Your task to perform on an android device: toggle improve location accuracy Image 0: 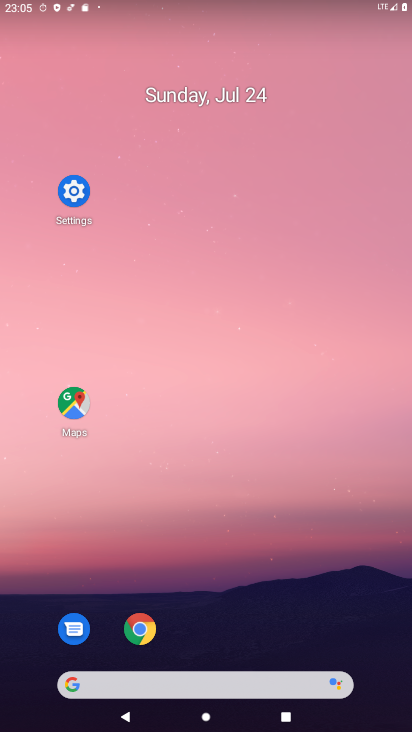
Step 0: drag from (297, 695) to (229, 126)
Your task to perform on an android device: toggle improve location accuracy Image 1: 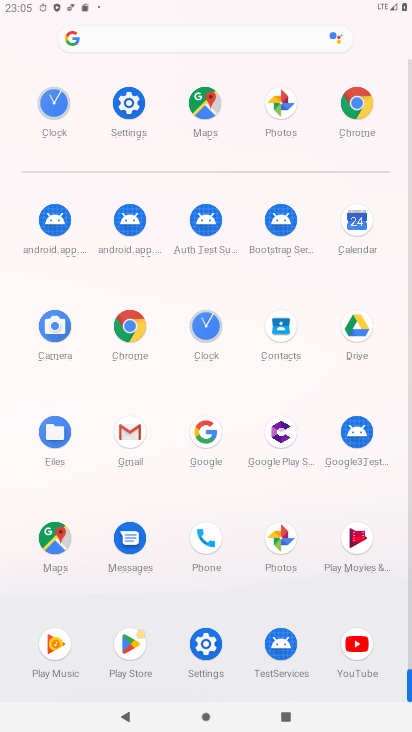
Step 1: click (128, 110)
Your task to perform on an android device: toggle improve location accuracy Image 2: 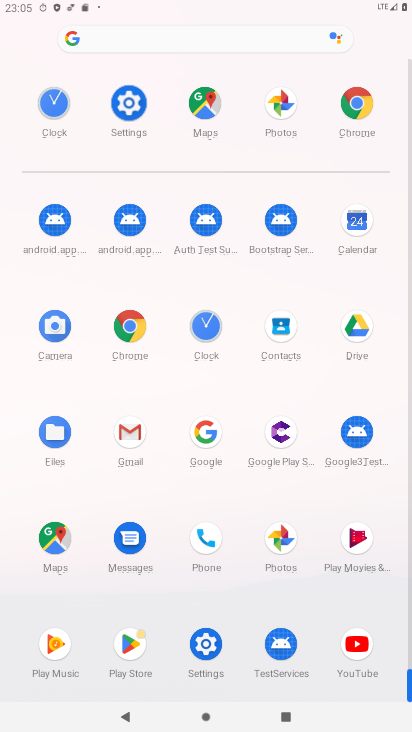
Step 2: click (107, 95)
Your task to perform on an android device: toggle improve location accuracy Image 3: 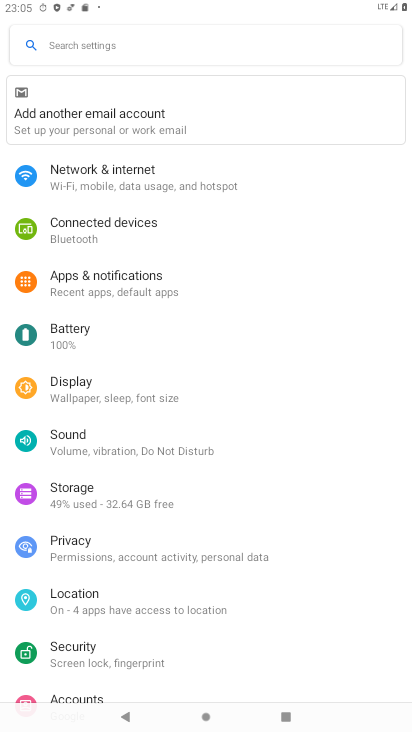
Step 3: click (114, 600)
Your task to perform on an android device: toggle improve location accuracy Image 4: 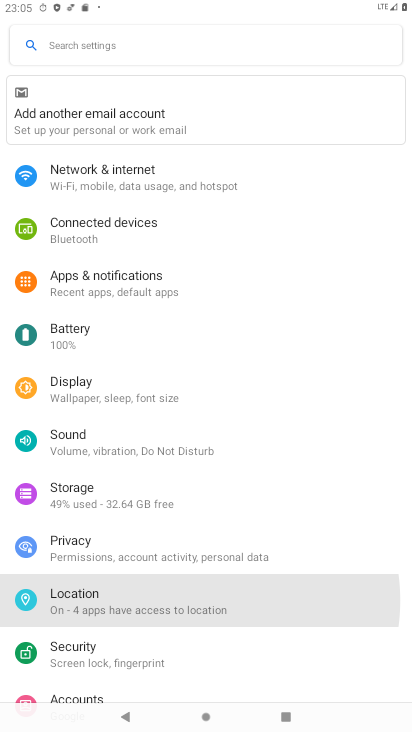
Step 4: click (114, 600)
Your task to perform on an android device: toggle improve location accuracy Image 5: 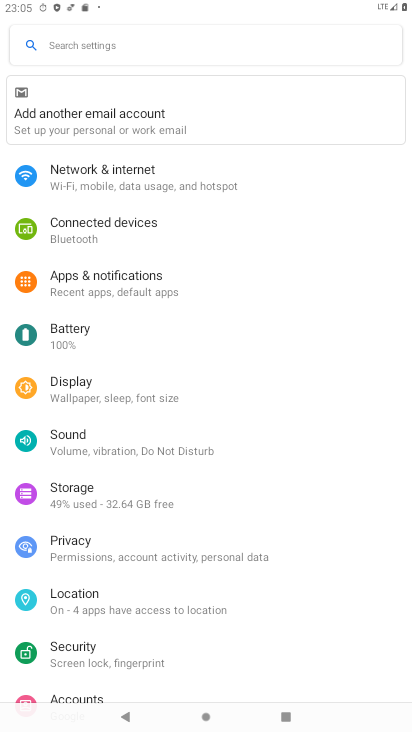
Step 5: click (111, 606)
Your task to perform on an android device: toggle improve location accuracy Image 6: 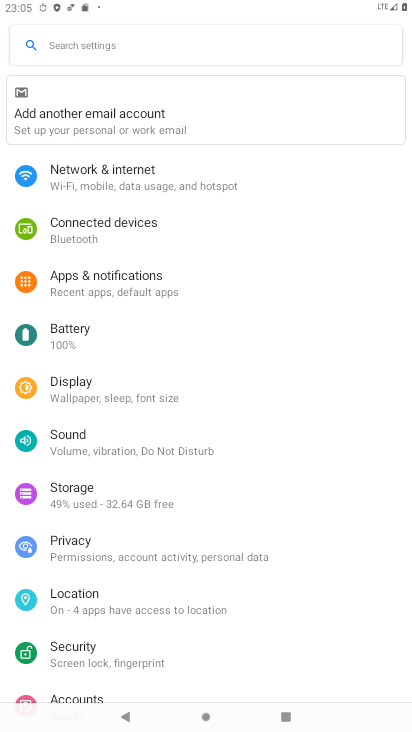
Step 6: click (107, 613)
Your task to perform on an android device: toggle improve location accuracy Image 7: 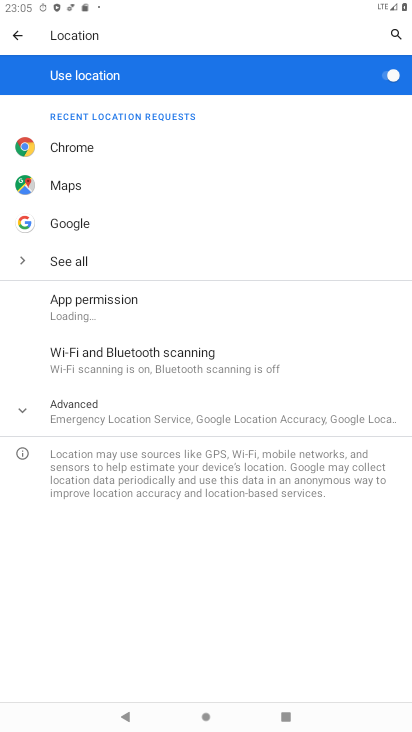
Step 7: click (94, 403)
Your task to perform on an android device: toggle improve location accuracy Image 8: 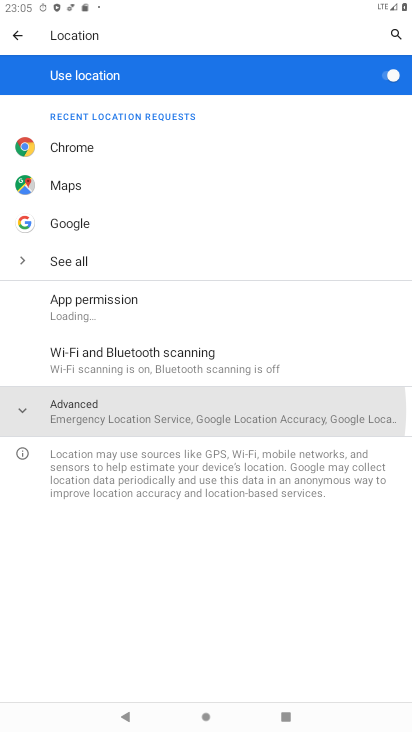
Step 8: click (93, 402)
Your task to perform on an android device: toggle improve location accuracy Image 9: 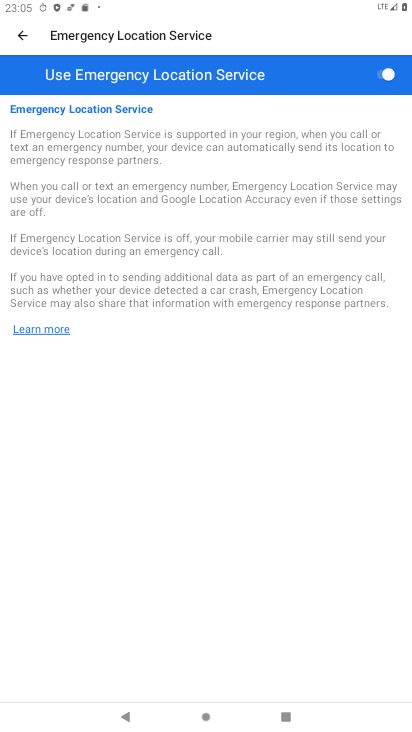
Step 9: click (16, 32)
Your task to perform on an android device: toggle improve location accuracy Image 10: 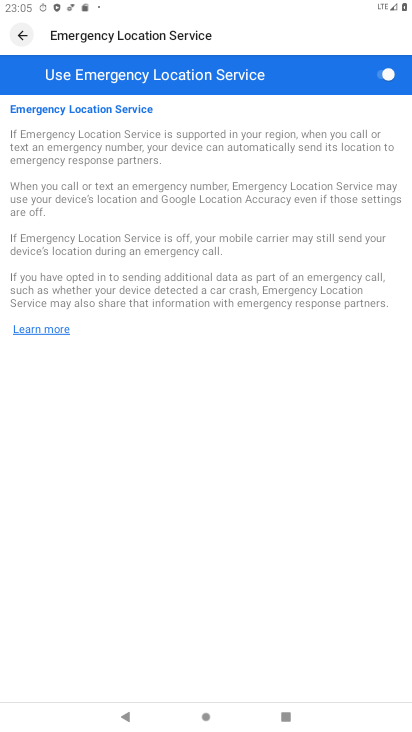
Step 10: click (22, 34)
Your task to perform on an android device: toggle improve location accuracy Image 11: 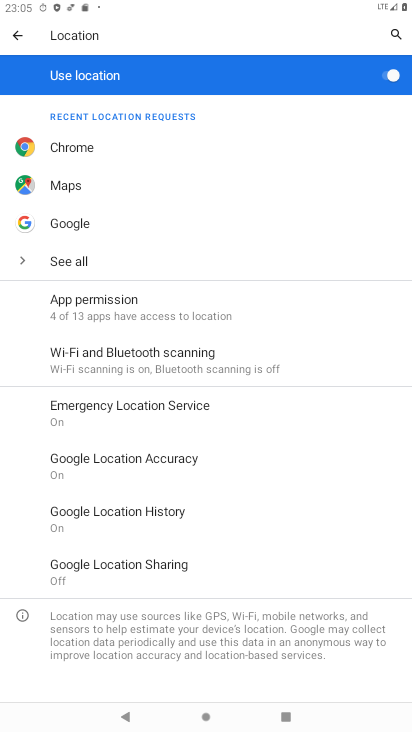
Step 11: click (122, 457)
Your task to perform on an android device: toggle improve location accuracy Image 12: 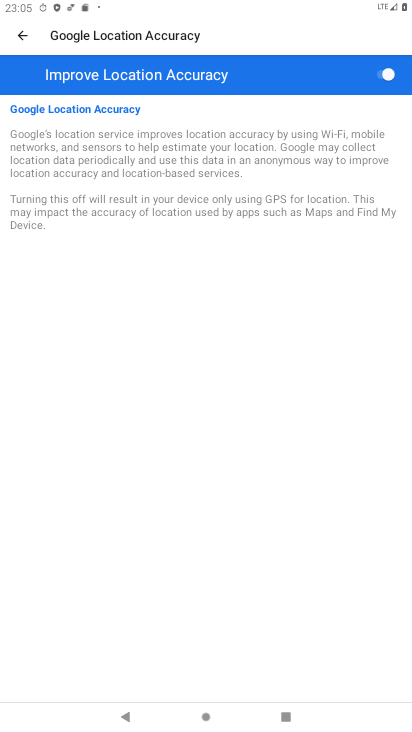
Step 12: click (387, 75)
Your task to perform on an android device: toggle improve location accuracy Image 13: 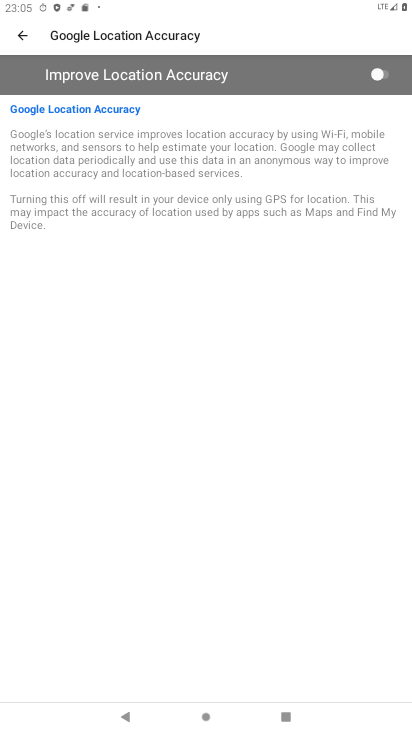
Step 13: task complete